Your task to perform on an android device: turn off priority inbox in the gmail app Image 0: 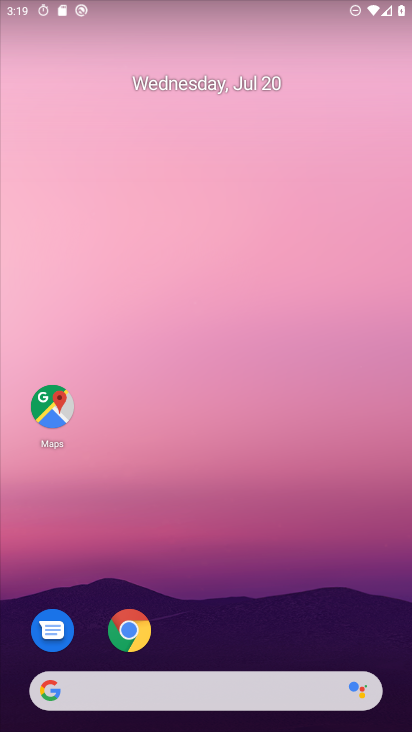
Step 0: drag from (195, 405) to (218, 172)
Your task to perform on an android device: turn off priority inbox in the gmail app Image 1: 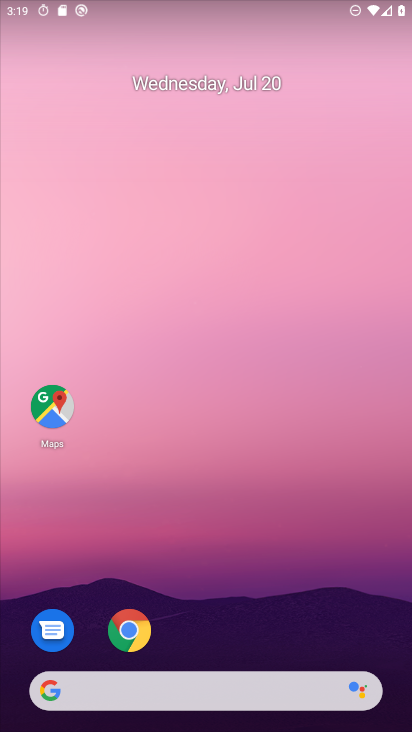
Step 1: drag from (243, 606) to (236, 238)
Your task to perform on an android device: turn off priority inbox in the gmail app Image 2: 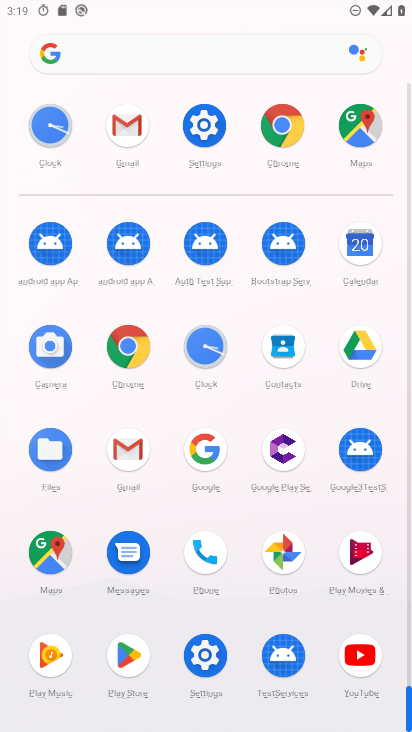
Step 2: click (124, 456)
Your task to perform on an android device: turn off priority inbox in the gmail app Image 3: 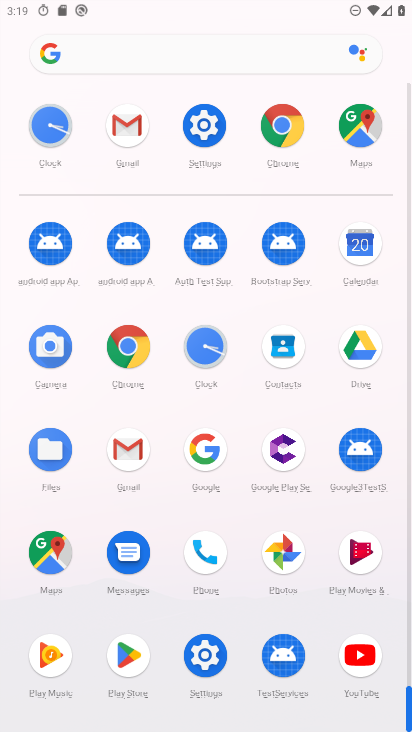
Step 3: click (123, 457)
Your task to perform on an android device: turn off priority inbox in the gmail app Image 4: 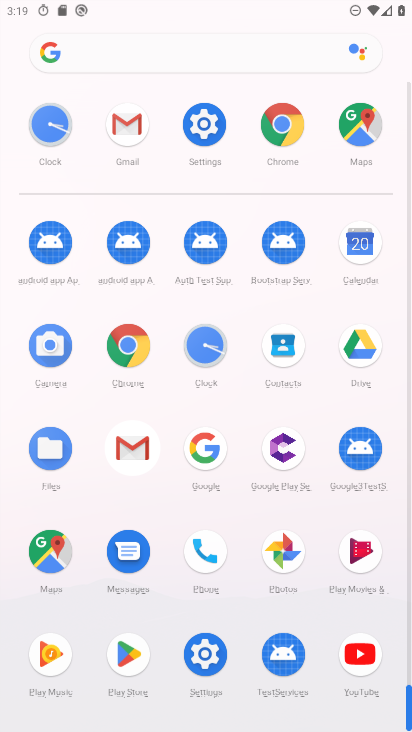
Step 4: click (125, 457)
Your task to perform on an android device: turn off priority inbox in the gmail app Image 5: 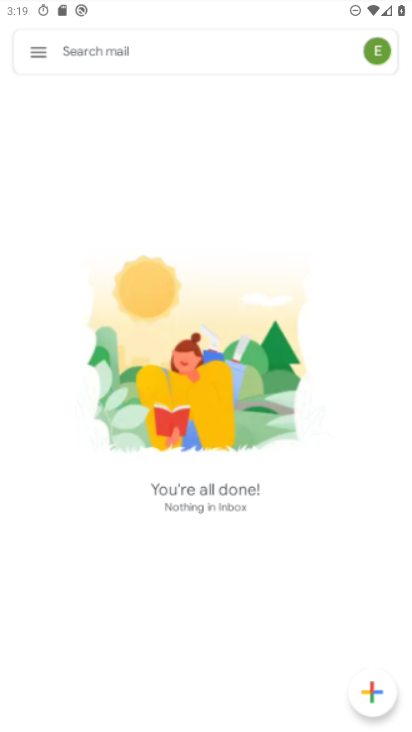
Step 5: click (127, 455)
Your task to perform on an android device: turn off priority inbox in the gmail app Image 6: 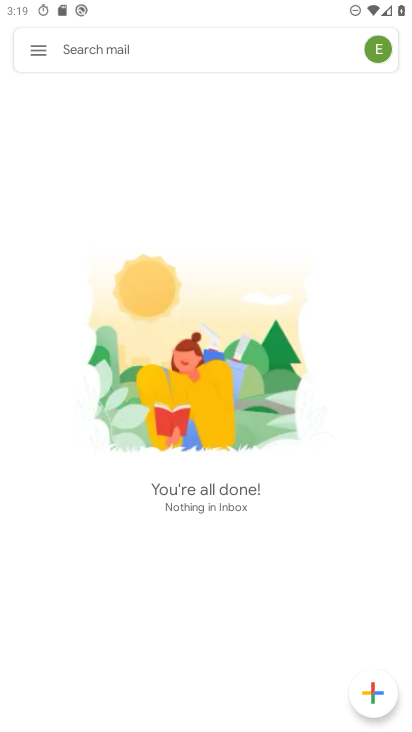
Step 6: click (45, 52)
Your task to perform on an android device: turn off priority inbox in the gmail app Image 7: 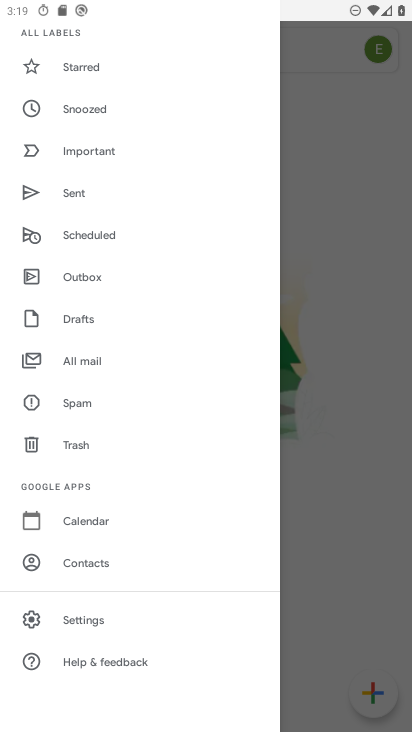
Step 7: click (76, 615)
Your task to perform on an android device: turn off priority inbox in the gmail app Image 8: 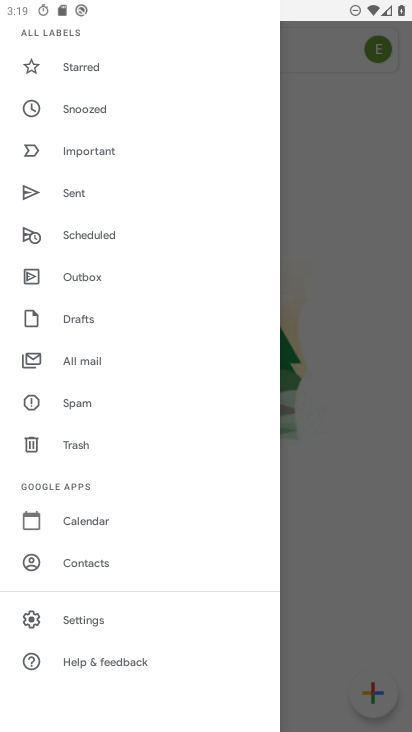
Step 8: click (76, 615)
Your task to perform on an android device: turn off priority inbox in the gmail app Image 9: 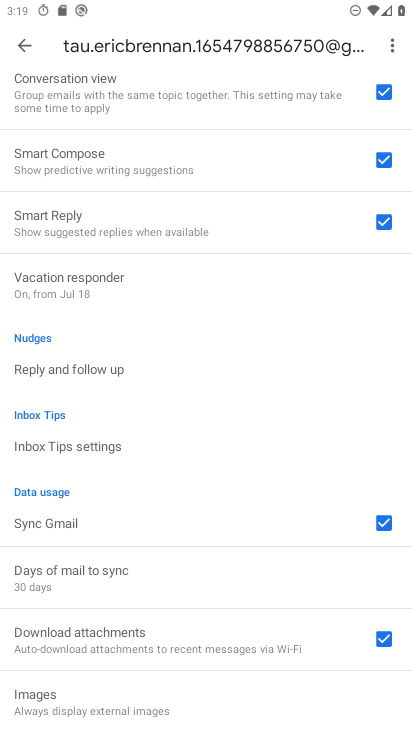
Step 9: drag from (105, 578) to (150, 110)
Your task to perform on an android device: turn off priority inbox in the gmail app Image 10: 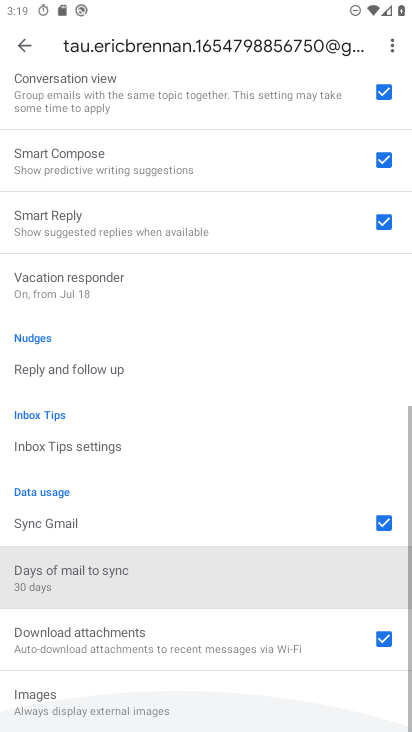
Step 10: drag from (171, 417) to (191, 106)
Your task to perform on an android device: turn off priority inbox in the gmail app Image 11: 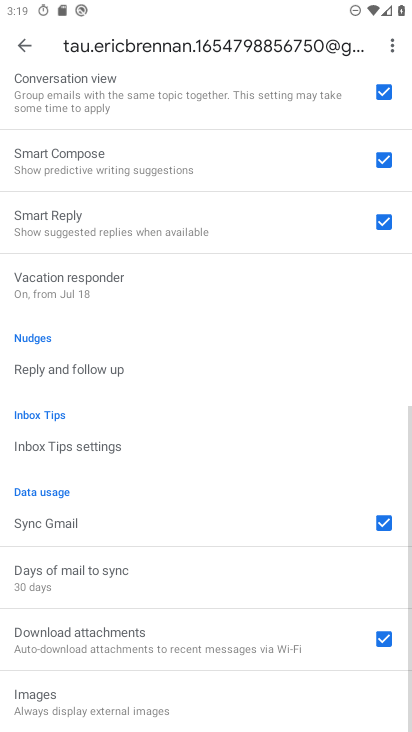
Step 11: drag from (68, 124) to (87, 460)
Your task to perform on an android device: turn off priority inbox in the gmail app Image 12: 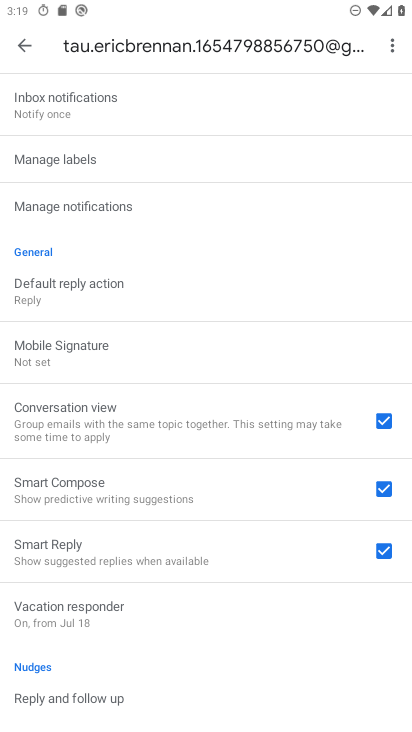
Step 12: click (23, 43)
Your task to perform on an android device: turn off priority inbox in the gmail app Image 13: 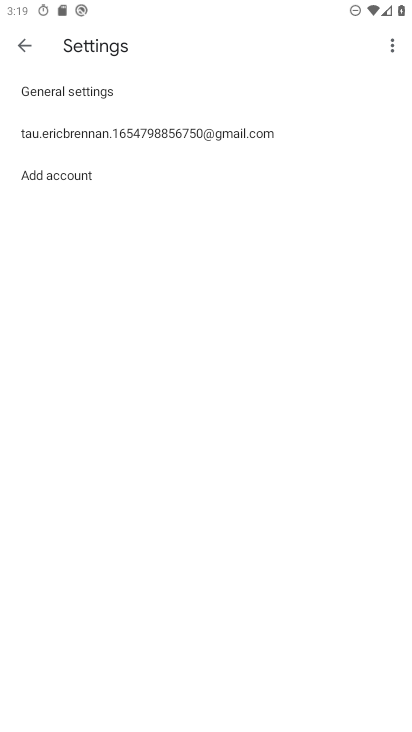
Step 13: click (24, 45)
Your task to perform on an android device: turn off priority inbox in the gmail app Image 14: 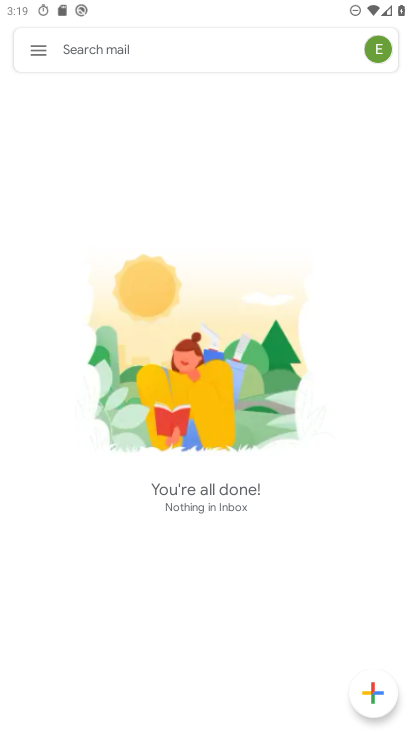
Step 14: task complete